Your task to perform on an android device: uninstall "Microsoft Authenticator" Image 0: 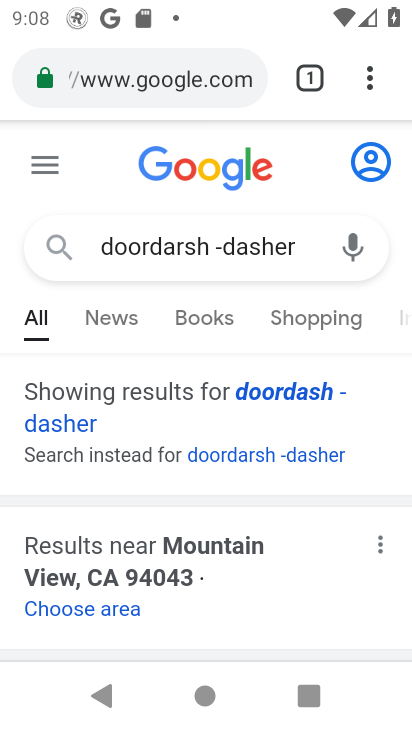
Step 0: press back button
Your task to perform on an android device: uninstall "Microsoft Authenticator" Image 1: 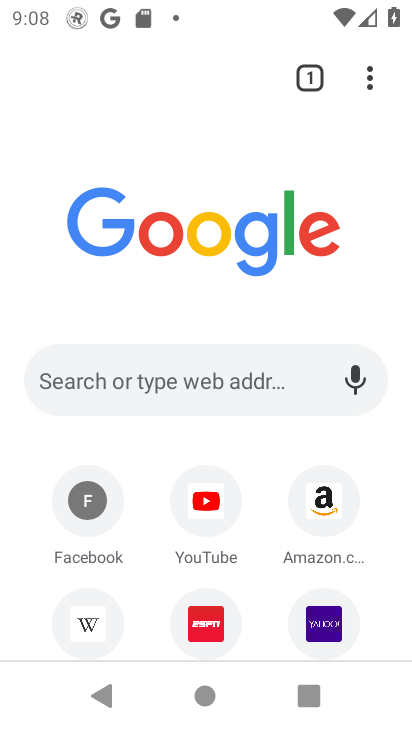
Step 1: press back button
Your task to perform on an android device: uninstall "Microsoft Authenticator" Image 2: 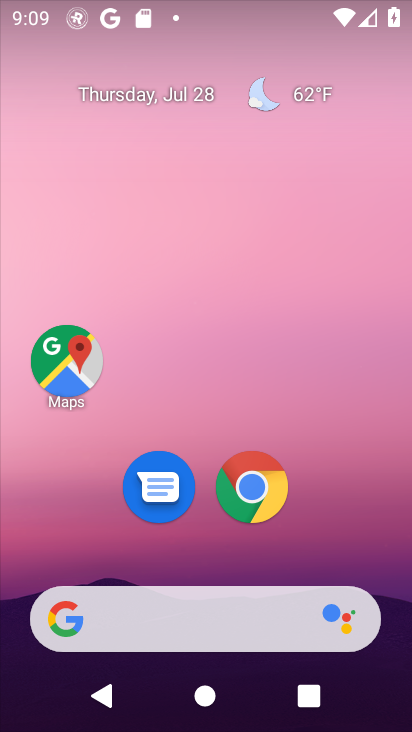
Step 2: drag from (226, 641) to (215, 143)
Your task to perform on an android device: uninstall "Microsoft Authenticator" Image 3: 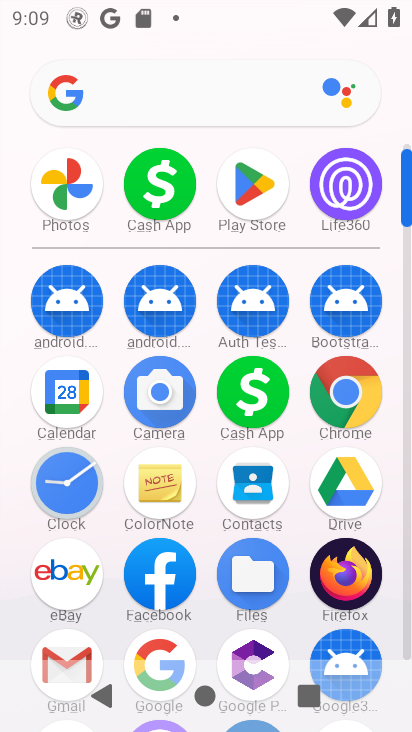
Step 3: click (260, 186)
Your task to perform on an android device: uninstall "Microsoft Authenticator" Image 4: 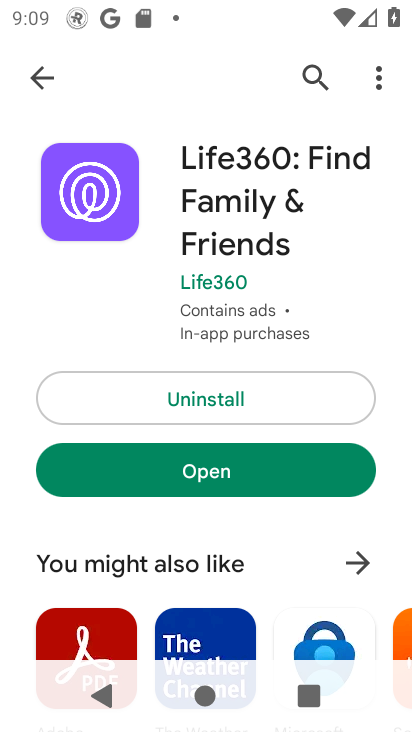
Step 4: click (260, 186)
Your task to perform on an android device: uninstall "Microsoft Authenticator" Image 5: 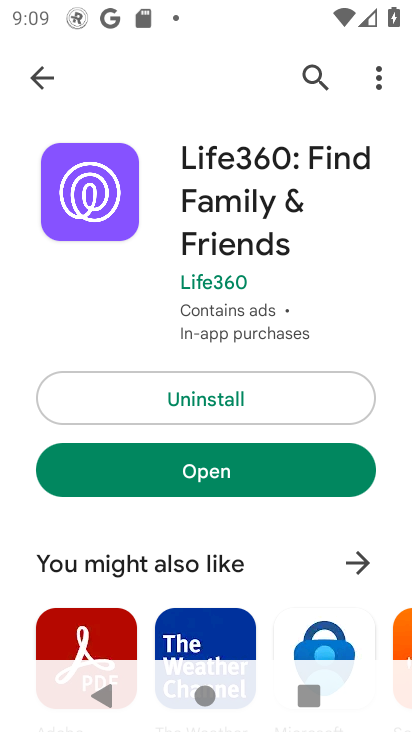
Step 5: click (39, 79)
Your task to perform on an android device: uninstall "Microsoft Authenticator" Image 6: 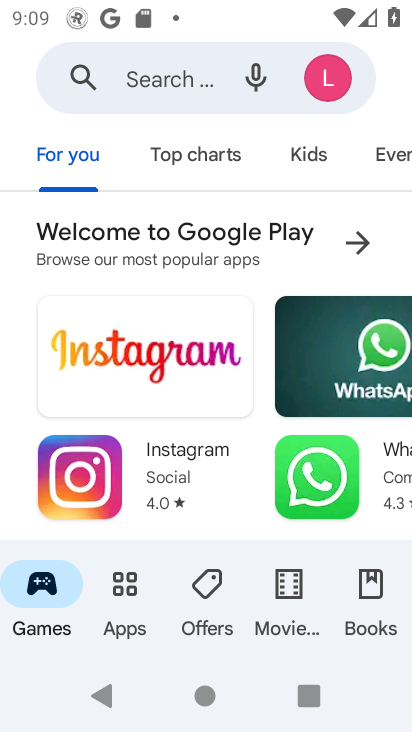
Step 6: click (182, 55)
Your task to perform on an android device: uninstall "Microsoft Authenticator" Image 7: 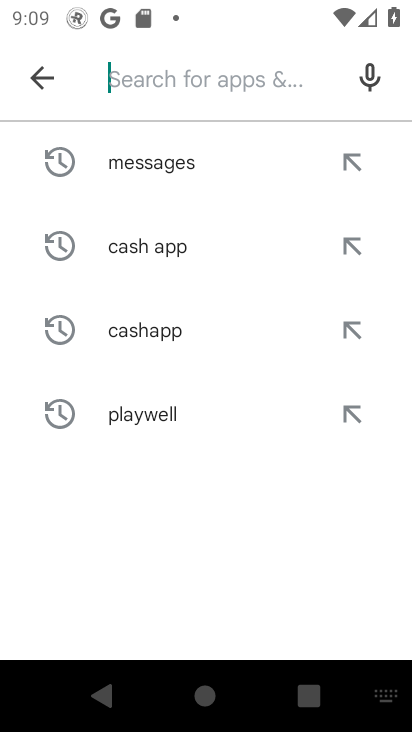
Step 7: type "MIcrosoft Authenticator"
Your task to perform on an android device: uninstall "Microsoft Authenticator" Image 8: 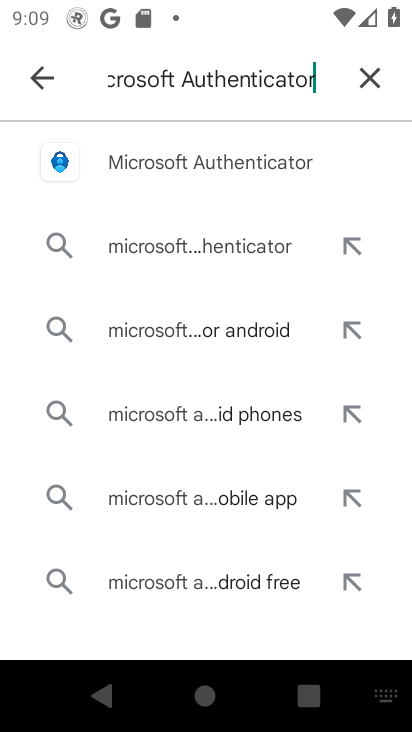
Step 8: click (188, 166)
Your task to perform on an android device: uninstall "Microsoft Authenticator" Image 9: 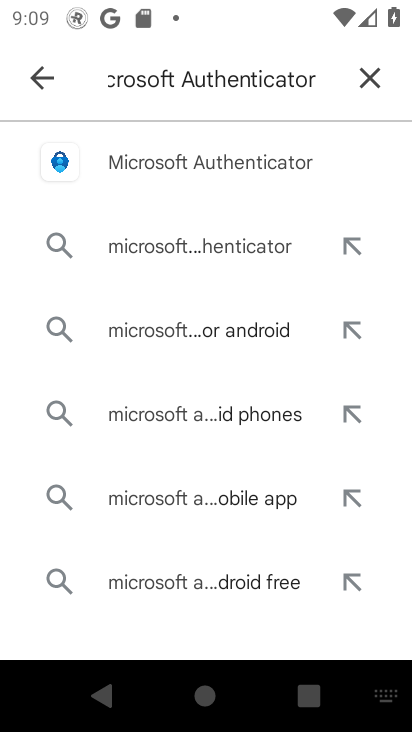
Step 9: click (189, 166)
Your task to perform on an android device: uninstall "Microsoft Authenticator" Image 10: 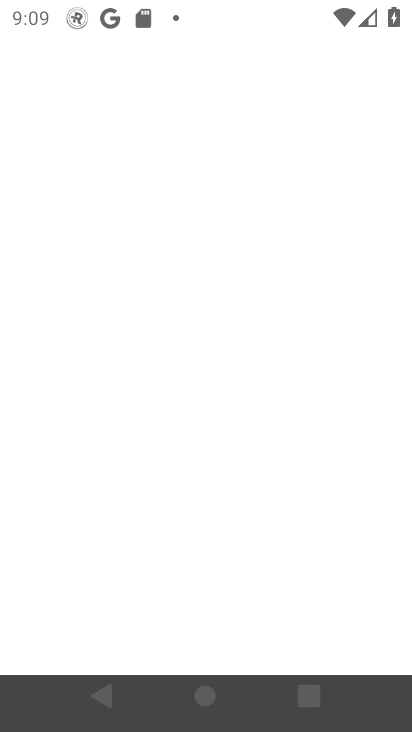
Step 10: click (193, 166)
Your task to perform on an android device: uninstall "Microsoft Authenticator" Image 11: 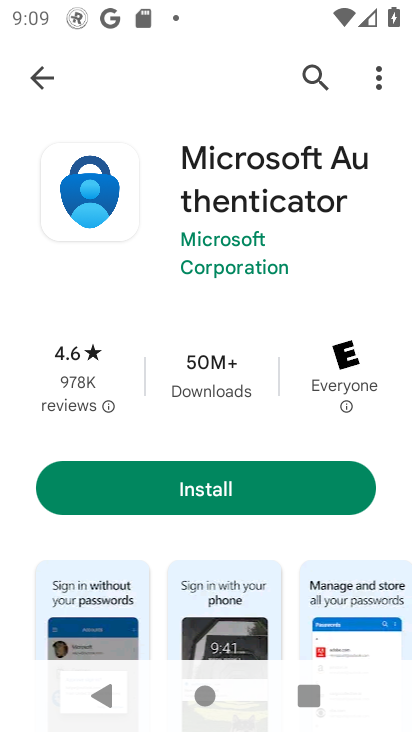
Step 11: task complete